Your task to perform on an android device: set the timer Image 0: 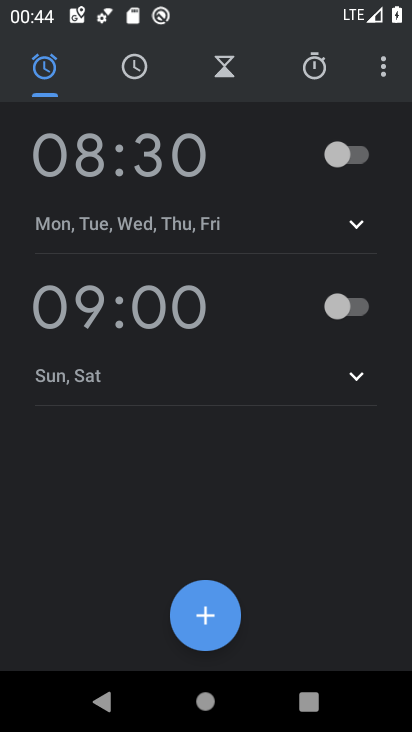
Step 0: click (224, 62)
Your task to perform on an android device: set the timer Image 1: 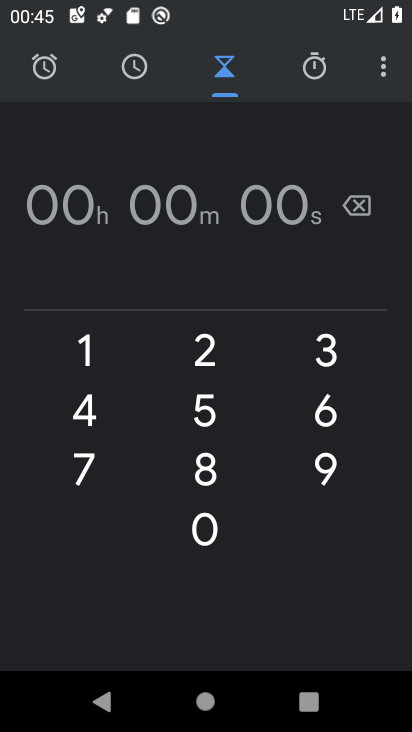
Step 1: click (89, 346)
Your task to perform on an android device: set the timer Image 2: 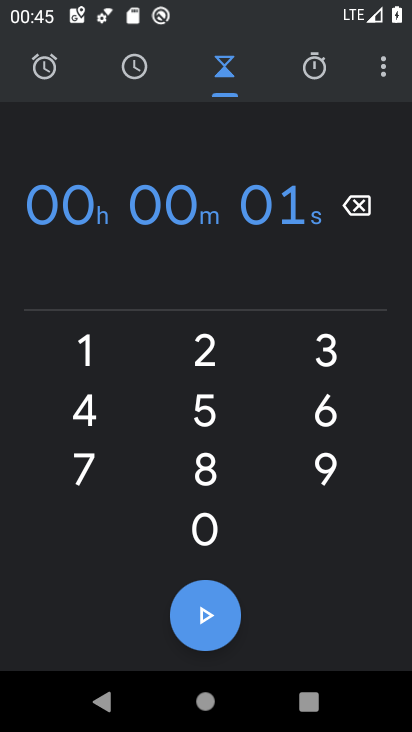
Step 2: click (89, 399)
Your task to perform on an android device: set the timer Image 3: 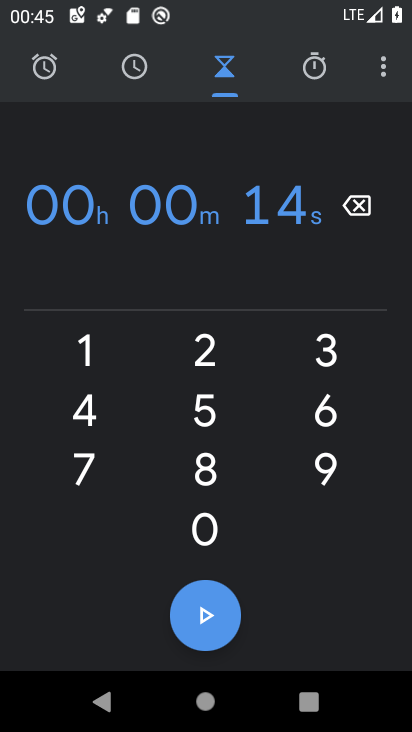
Step 3: task complete